Your task to perform on an android device: open chrome privacy settings Image 0: 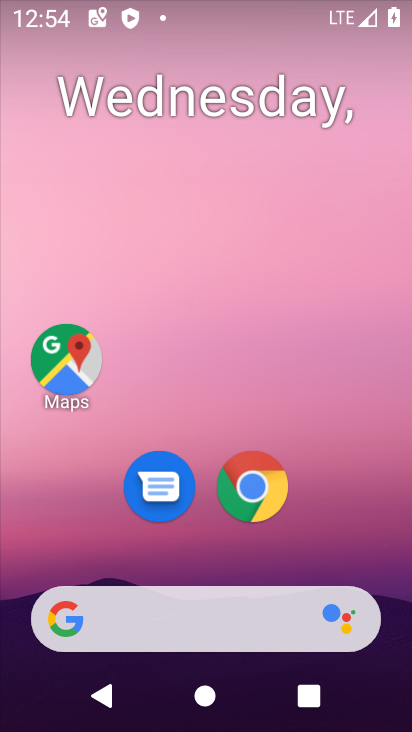
Step 0: drag from (372, 551) to (375, 79)
Your task to perform on an android device: open chrome privacy settings Image 1: 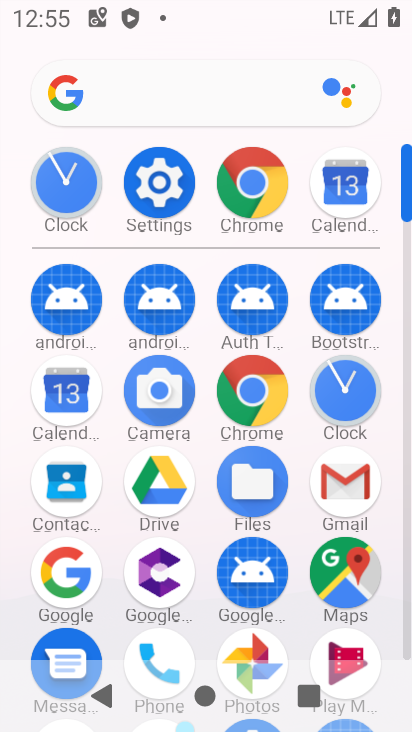
Step 1: click (259, 386)
Your task to perform on an android device: open chrome privacy settings Image 2: 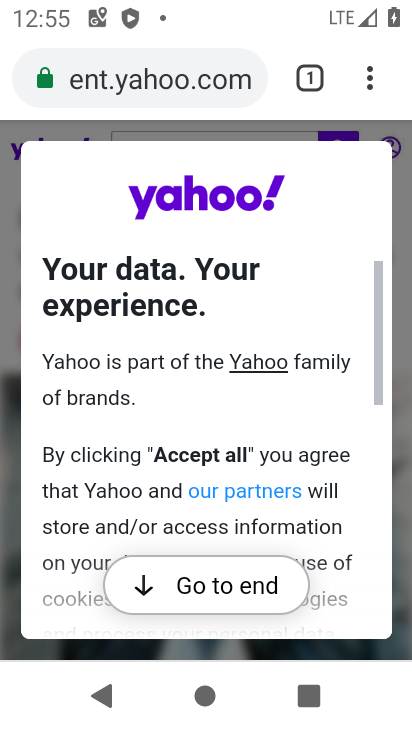
Step 2: click (373, 85)
Your task to perform on an android device: open chrome privacy settings Image 3: 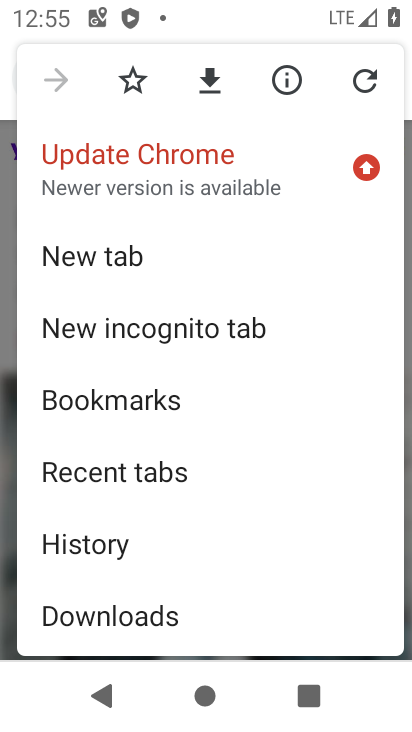
Step 3: drag from (309, 450) to (308, 325)
Your task to perform on an android device: open chrome privacy settings Image 4: 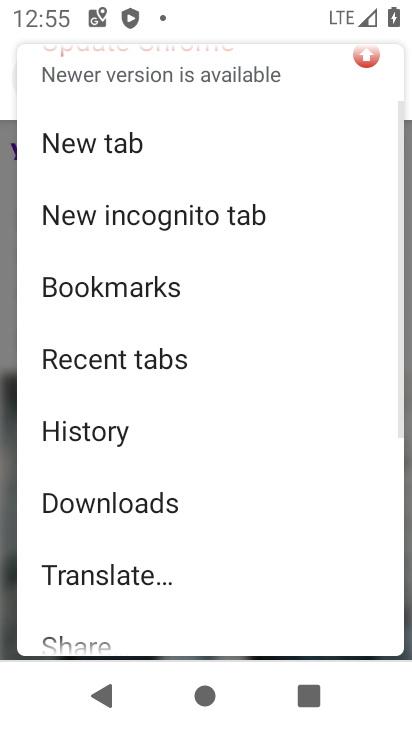
Step 4: drag from (280, 479) to (292, 268)
Your task to perform on an android device: open chrome privacy settings Image 5: 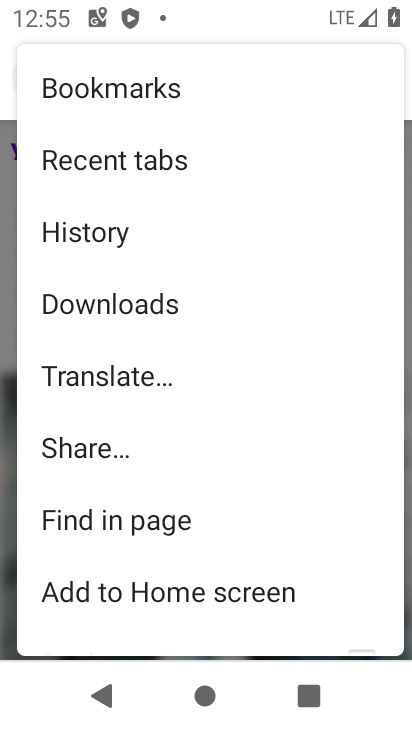
Step 5: drag from (302, 452) to (334, 283)
Your task to perform on an android device: open chrome privacy settings Image 6: 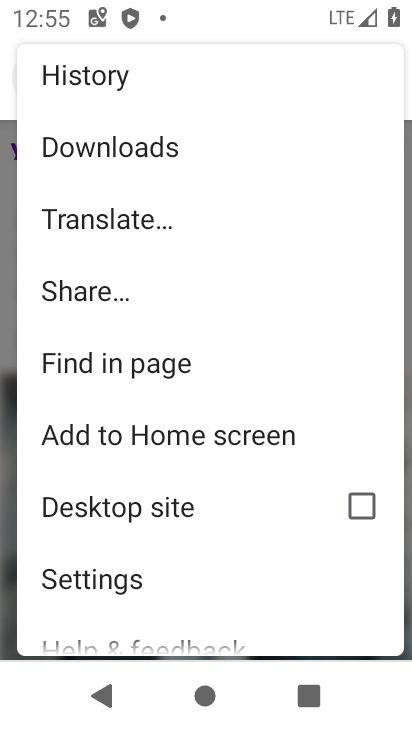
Step 6: drag from (322, 397) to (328, 160)
Your task to perform on an android device: open chrome privacy settings Image 7: 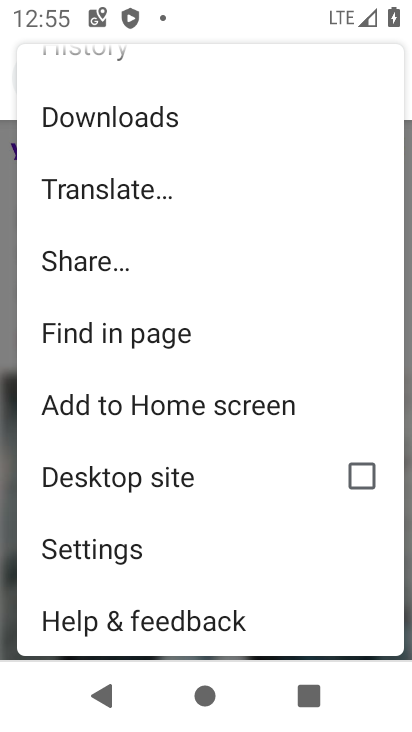
Step 7: click (139, 553)
Your task to perform on an android device: open chrome privacy settings Image 8: 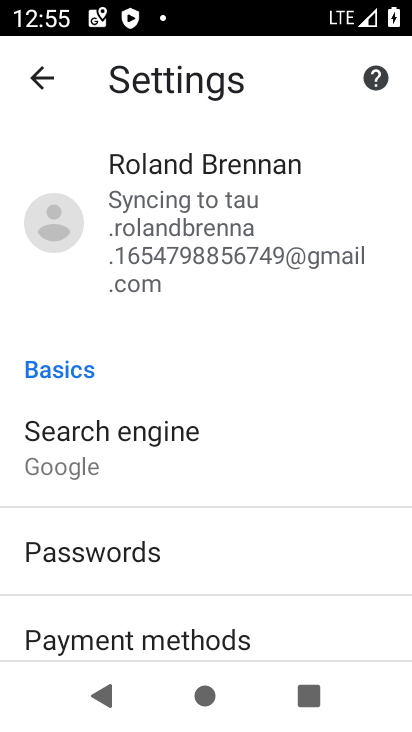
Step 8: drag from (336, 512) to (340, 318)
Your task to perform on an android device: open chrome privacy settings Image 9: 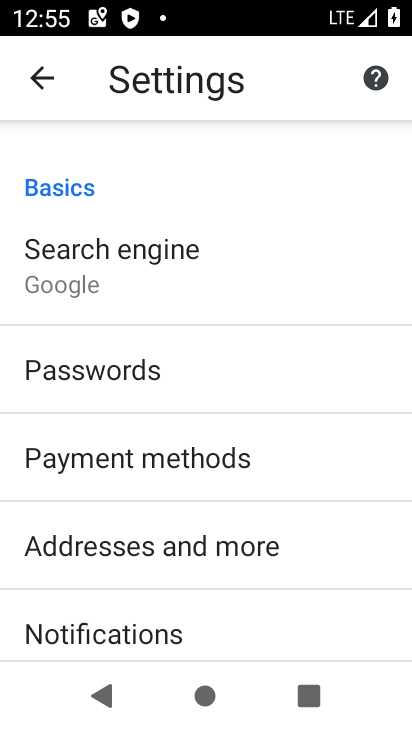
Step 9: drag from (328, 512) to (325, 360)
Your task to perform on an android device: open chrome privacy settings Image 10: 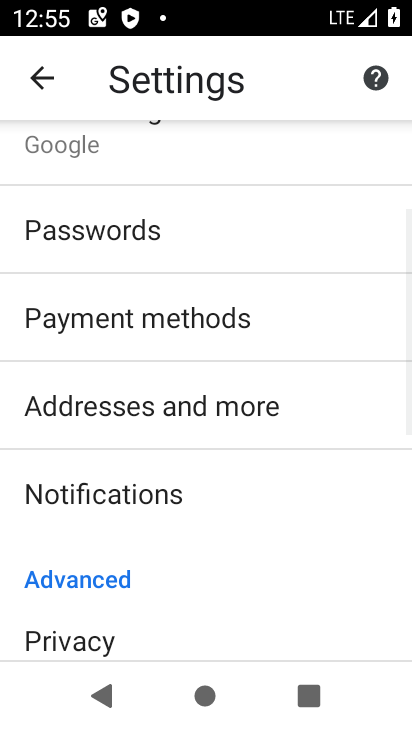
Step 10: drag from (325, 488) to (335, 338)
Your task to perform on an android device: open chrome privacy settings Image 11: 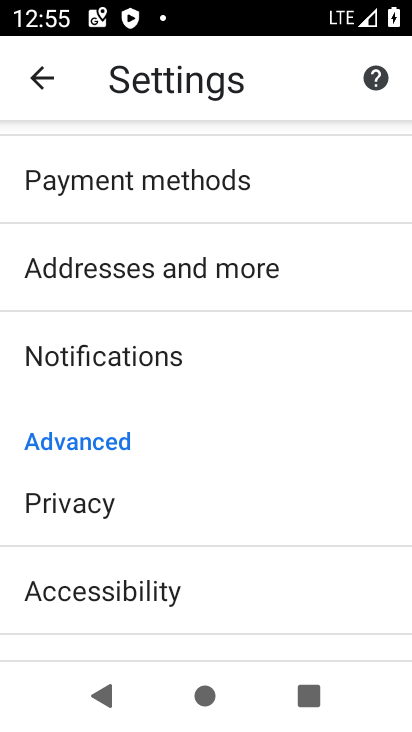
Step 11: drag from (338, 532) to (341, 378)
Your task to perform on an android device: open chrome privacy settings Image 12: 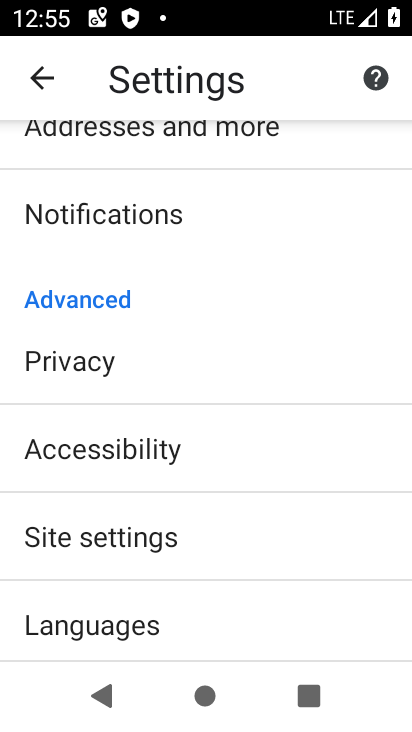
Step 12: drag from (342, 557) to (367, 346)
Your task to perform on an android device: open chrome privacy settings Image 13: 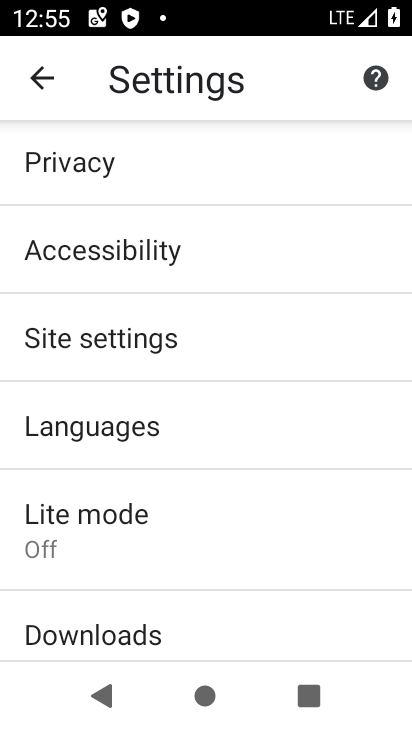
Step 13: drag from (348, 477) to (349, 335)
Your task to perform on an android device: open chrome privacy settings Image 14: 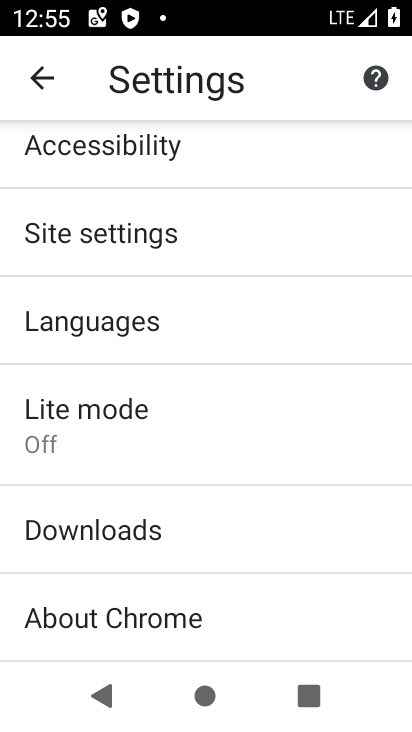
Step 14: drag from (349, 528) to (355, 351)
Your task to perform on an android device: open chrome privacy settings Image 15: 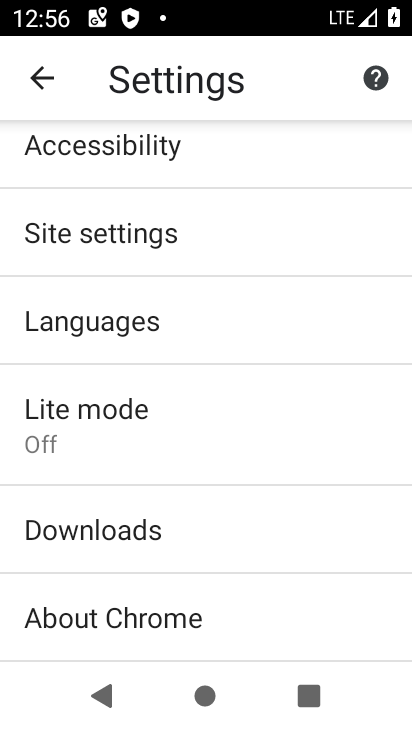
Step 15: drag from (343, 221) to (327, 453)
Your task to perform on an android device: open chrome privacy settings Image 16: 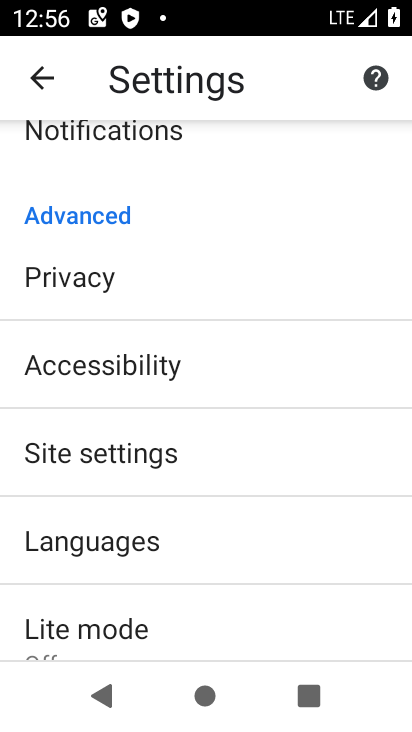
Step 16: click (193, 289)
Your task to perform on an android device: open chrome privacy settings Image 17: 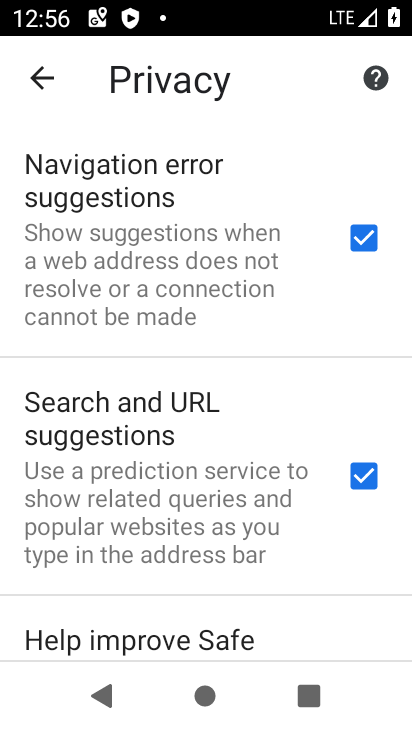
Step 17: task complete